Your task to perform on an android device: toggle translation in the chrome app Image 0: 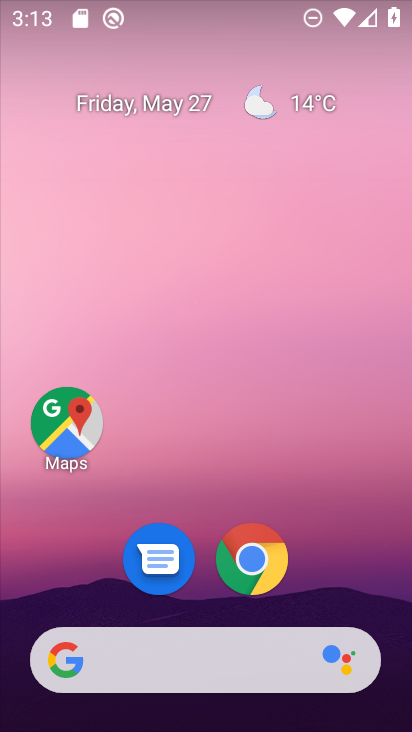
Step 0: drag from (272, 264) to (257, 36)
Your task to perform on an android device: toggle translation in the chrome app Image 1: 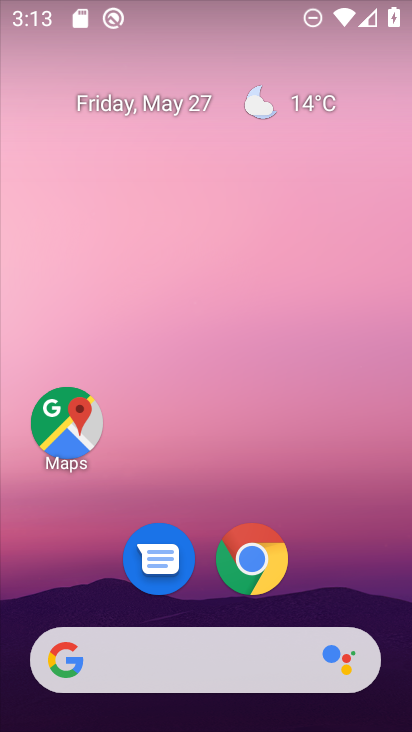
Step 1: drag from (327, 542) to (303, 54)
Your task to perform on an android device: toggle translation in the chrome app Image 2: 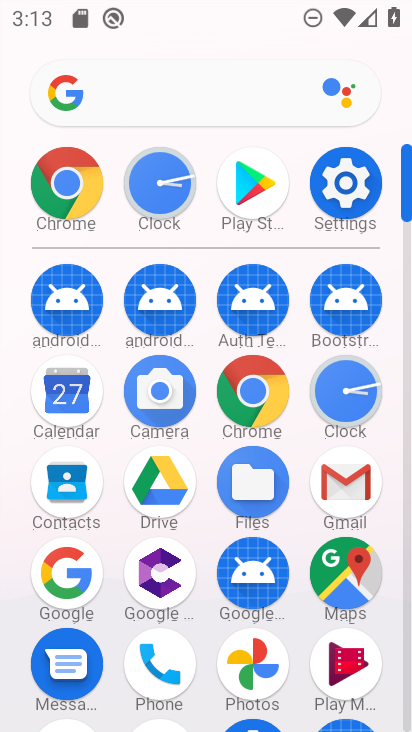
Step 2: click (71, 185)
Your task to perform on an android device: toggle translation in the chrome app Image 3: 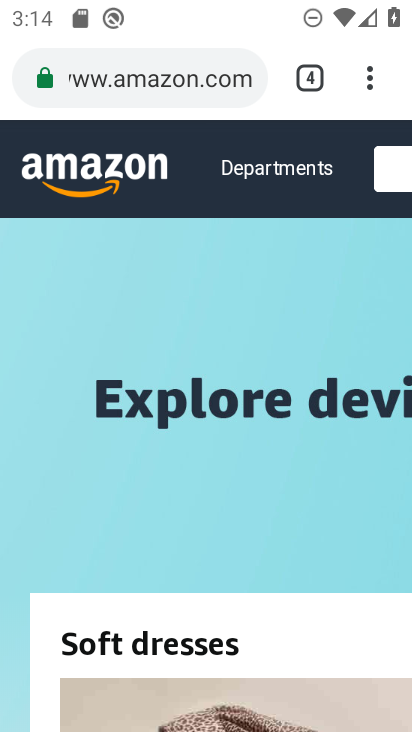
Step 3: click (371, 86)
Your task to perform on an android device: toggle translation in the chrome app Image 4: 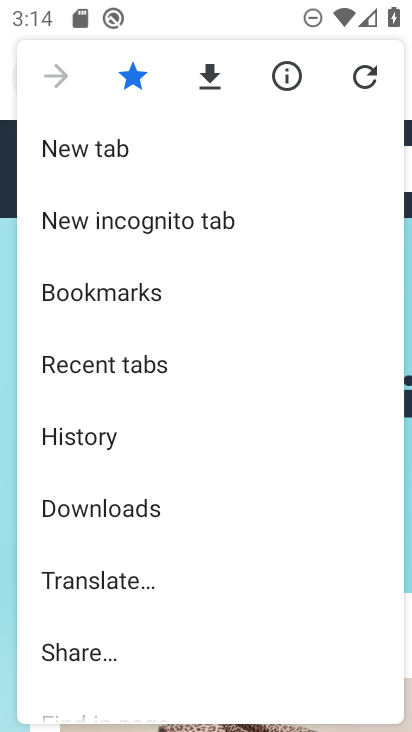
Step 4: drag from (151, 622) to (177, 224)
Your task to perform on an android device: toggle translation in the chrome app Image 5: 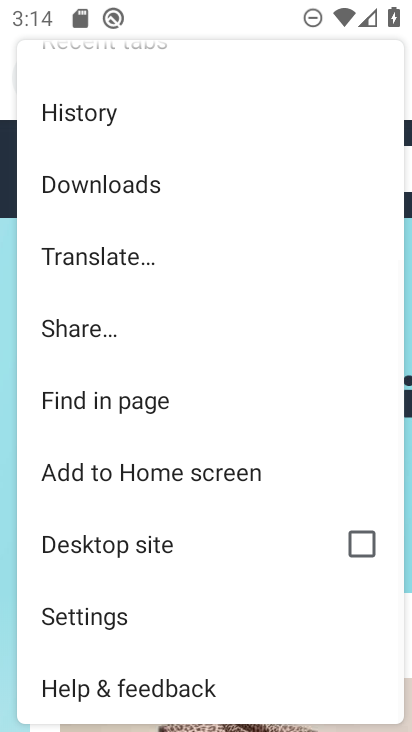
Step 5: click (97, 628)
Your task to perform on an android device: toggle translation in the chrome app Image 6: 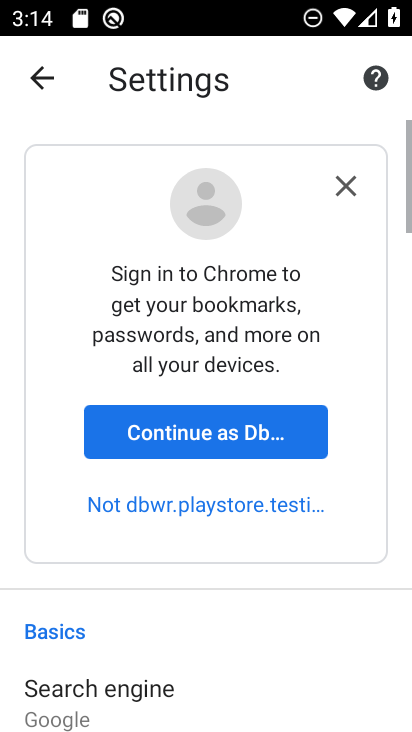
Step 6: drag from (217, 613) to (203, 178)
Your task to perform on an android device: toggle translation in the chrome app Image 7: 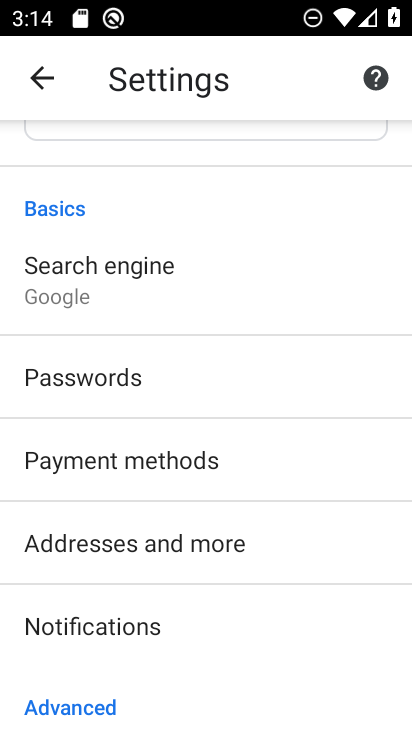
Step 7: drag from (263, 673) to (267, 206)
Your task to perform on an android device: toggle translation in the chrome app Image 8: 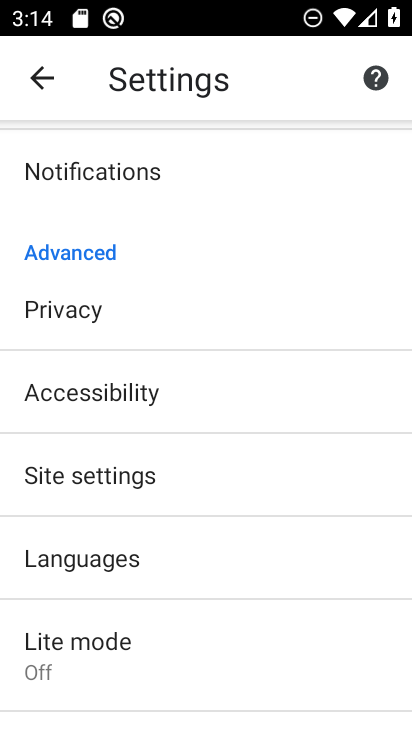
Step 8: click (183, 569)
Your task to perform on an android device: toggle translation in the chrome app Image 9: 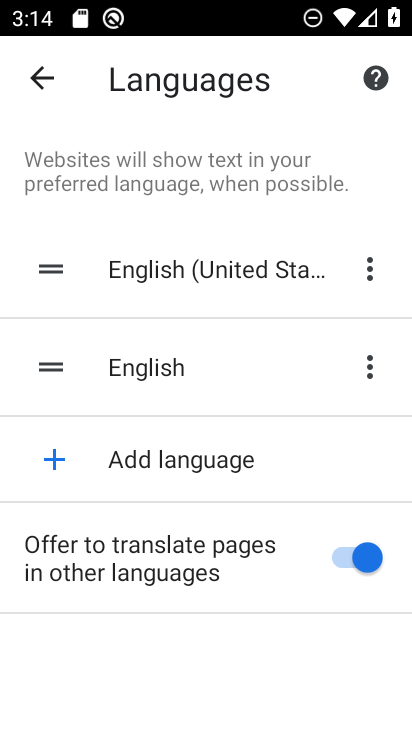
Step 9: click (350, 554)
Your task to perform on an android device: toggle translation in the chrome app Image 10: 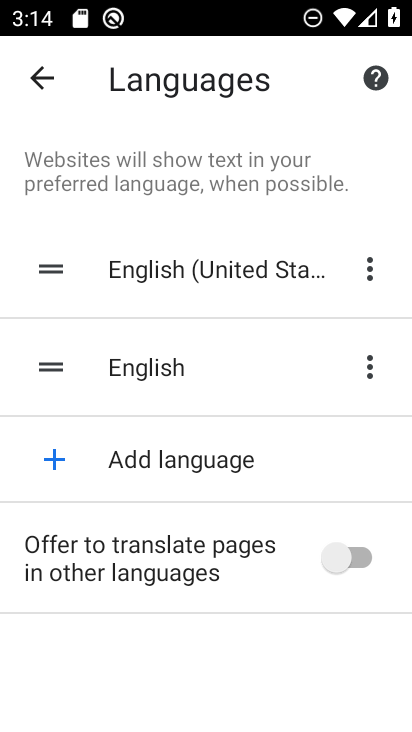
Step 10: task complete